Your task to perform on an android device: Go to Google Image 0: 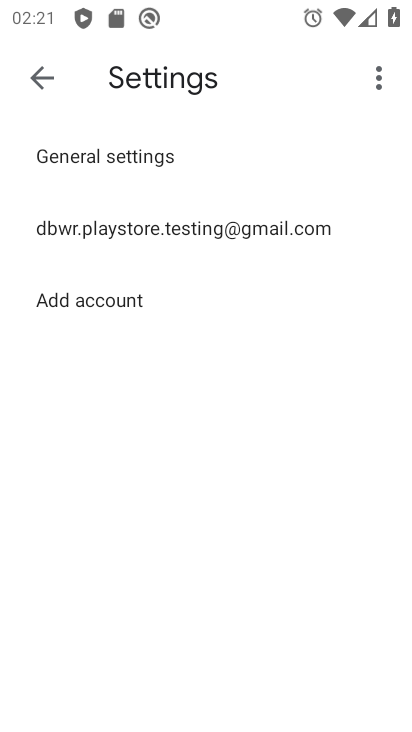
Step 0: press home button
Your task to perform on an android device: Go to Google Image 1: 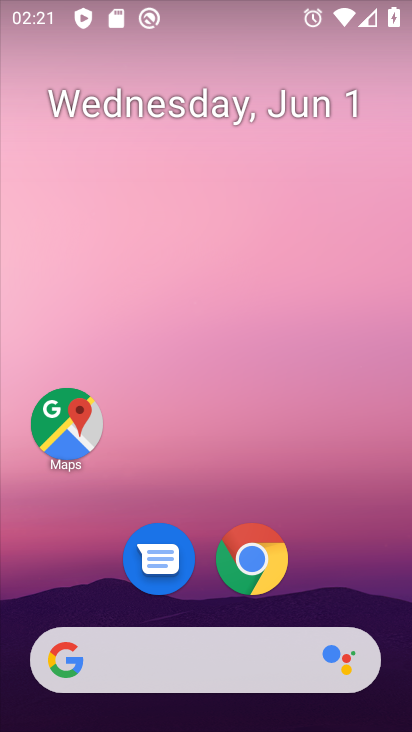
Step 1: click (72, 656)
Your task to perform on an android device: Go to Google Image 2: 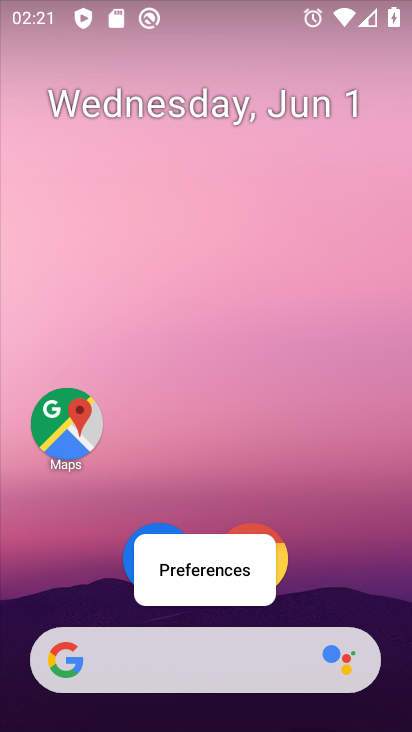
Step 2: click (72, 650)
Your task to perform on an android device: Go to Google Image 3: 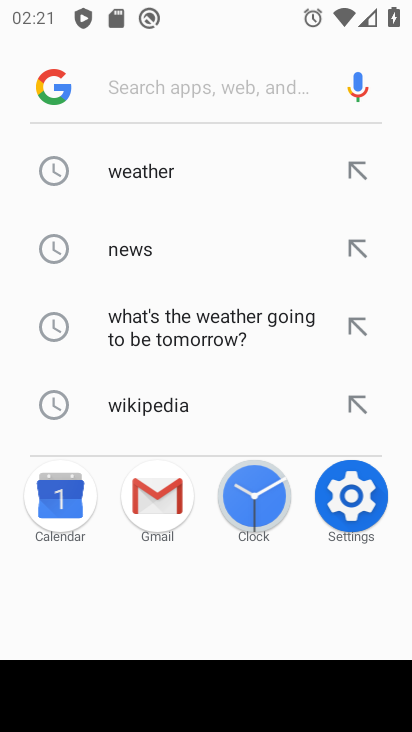
Step 3: task complete